Your task to perform on an android device: What is the news today? Image 0: 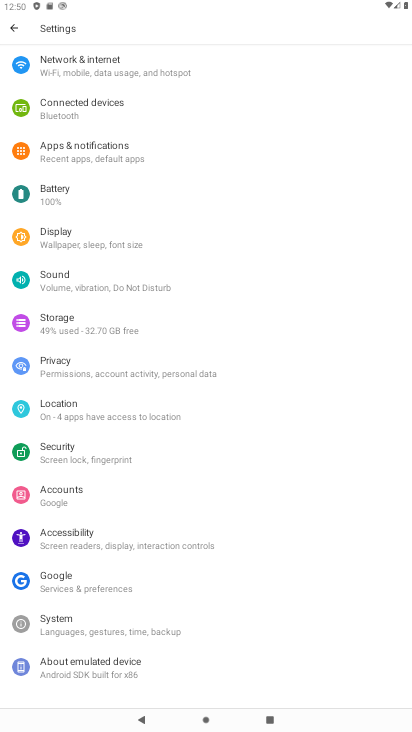
Step 0: press home button
Your task to perform on an android device: What is the news today? Image 1: 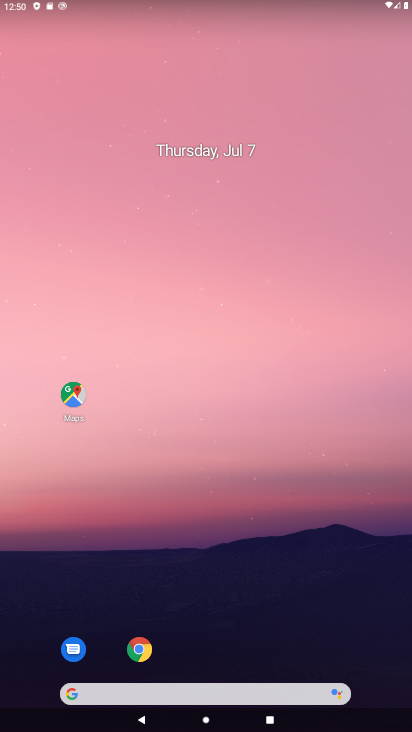
Step 1: click (107, 687)
Your task to perform on an android device: What is the news today? Image 2: 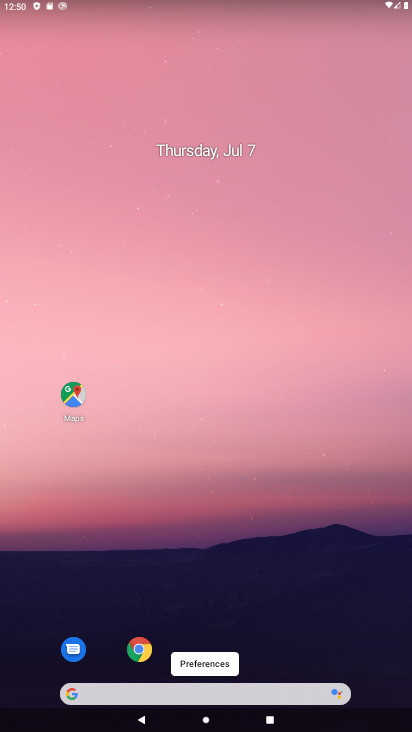
Step 2: click (271, 693)
Your task to perform on an android device: What is the news today? Image 3: 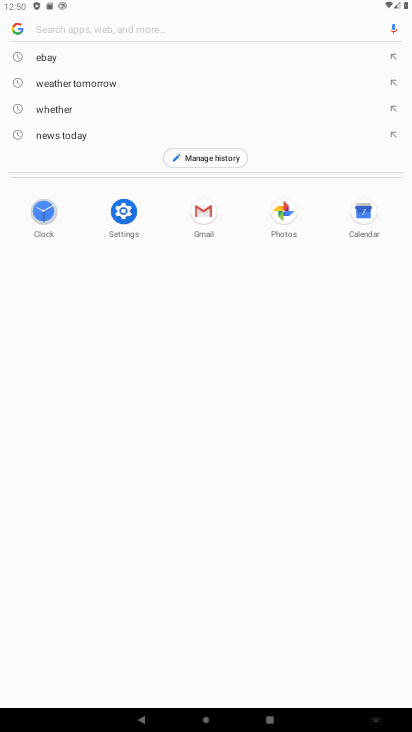
Step 3: click (63, 138)
Your task to perform on an android device: What is the news today? Image 4: 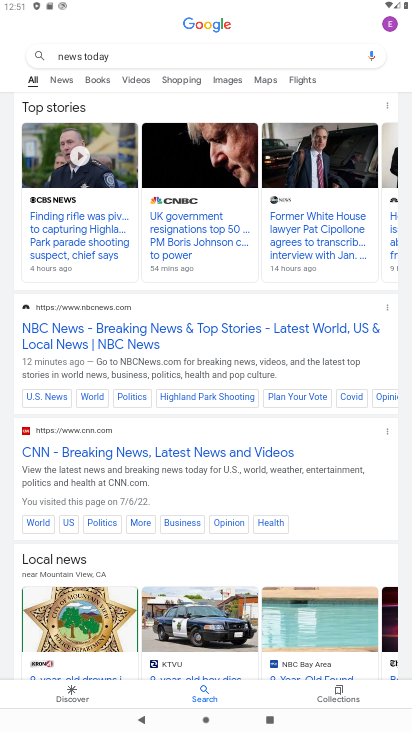
Step 4: task complete